Your task to perform on an android device: open a new tab in the chrome app Image 0: 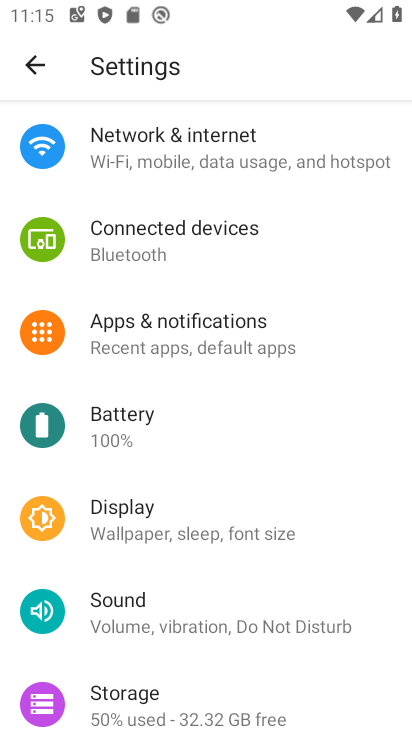
Step 0: press home button
Your task to perform on an android device: open a new tab in the chrome app Image 1: 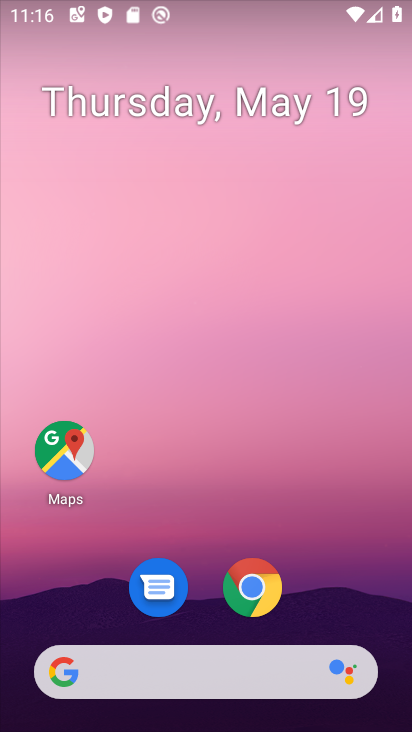
Step 1: click (256, 591)
Your task to perform on an android device: open a new tab in the chrome app Image 2: 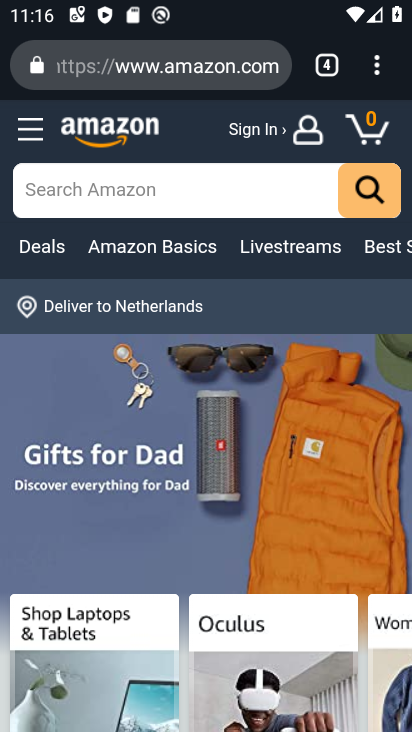
Step 2: click (375, 62)
Your task to perform on an android device: open a new tab in the chrome app Image 3: 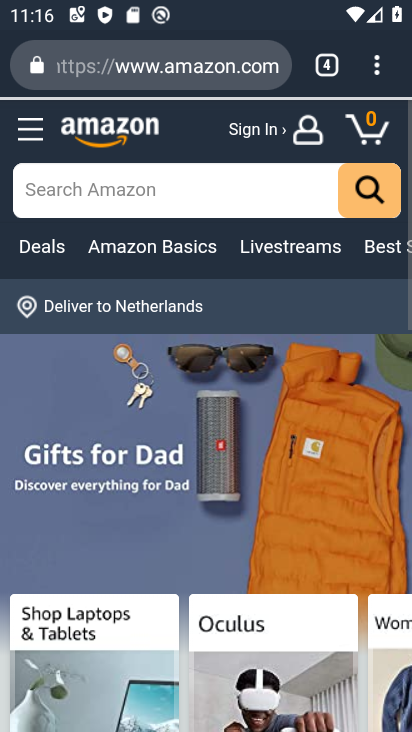
Step 3: task complete